Your task to perform on an android device: Add "jbl flip 4" to the cart on costco, then select checkout. Image 0: 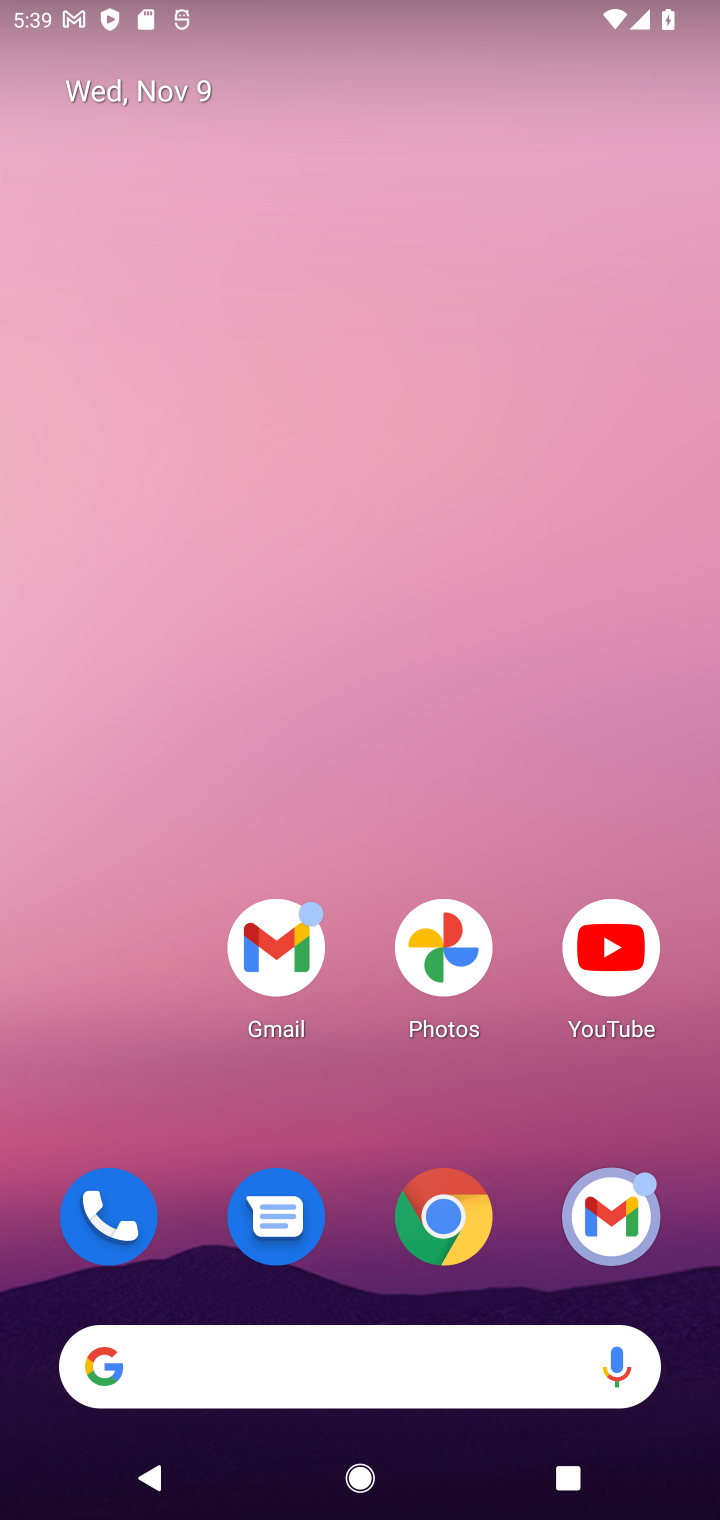
Step 0: drag from (347, 1269) to (401, 163)
Your task to perform on an android device: Add "jbl flip 4" to the cart on costco, then select checkout. Image 1: 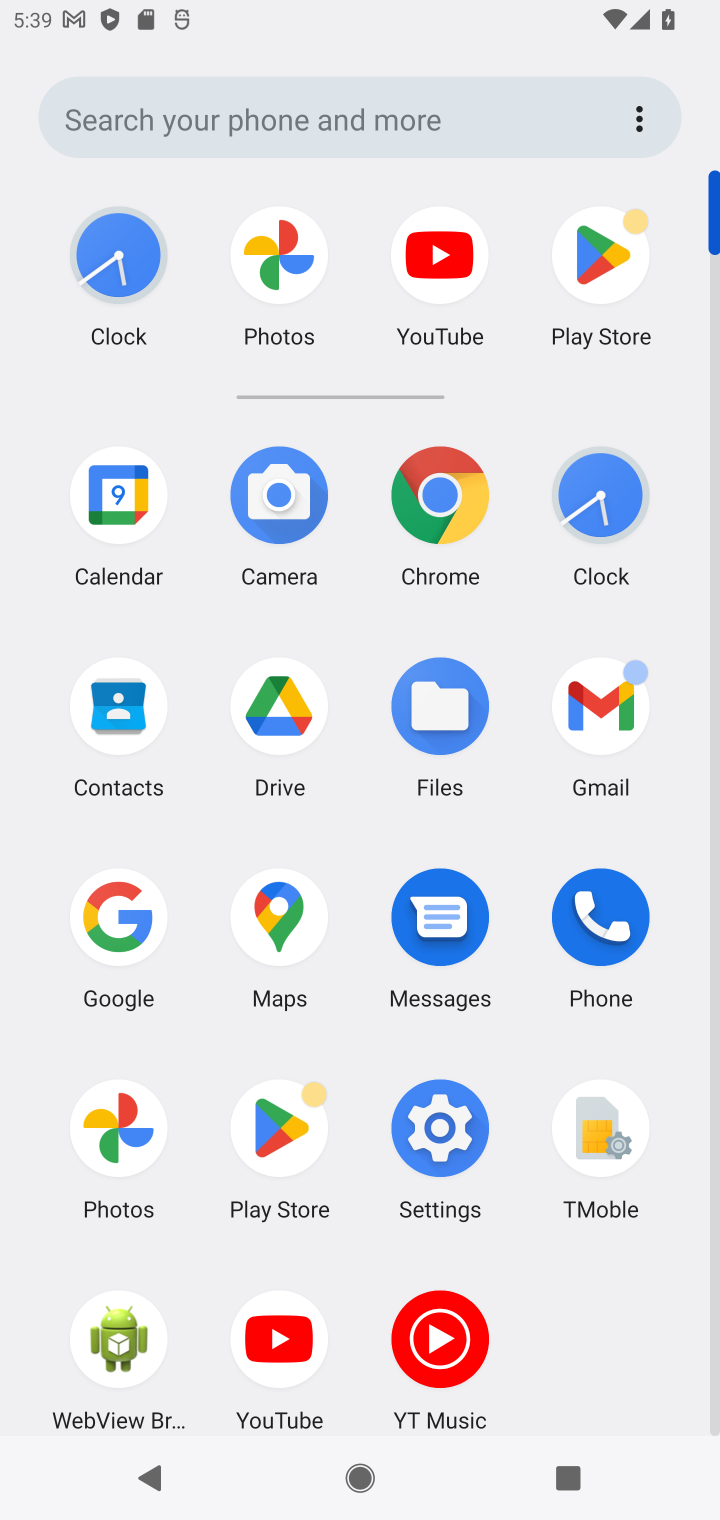
Step 1: click (458, 511)
Your task to perform on an android device: Add "jbl flip 4" to the cart on costco, then select checkout. Image 2: 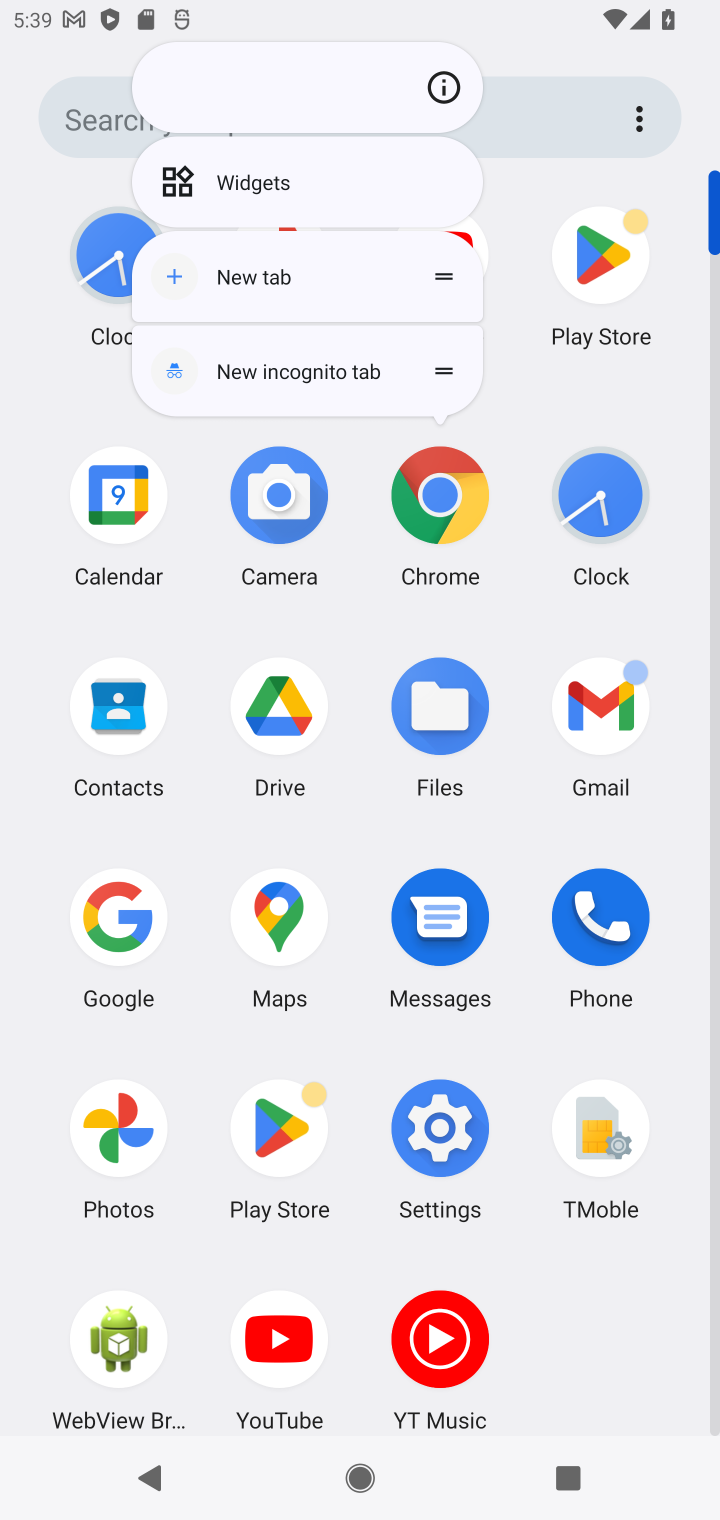
Step 2: click (431, 522)
Your task to perform on an android device: Add "jbl flip 4" to the cart on costco, then select checkout. Image 3: 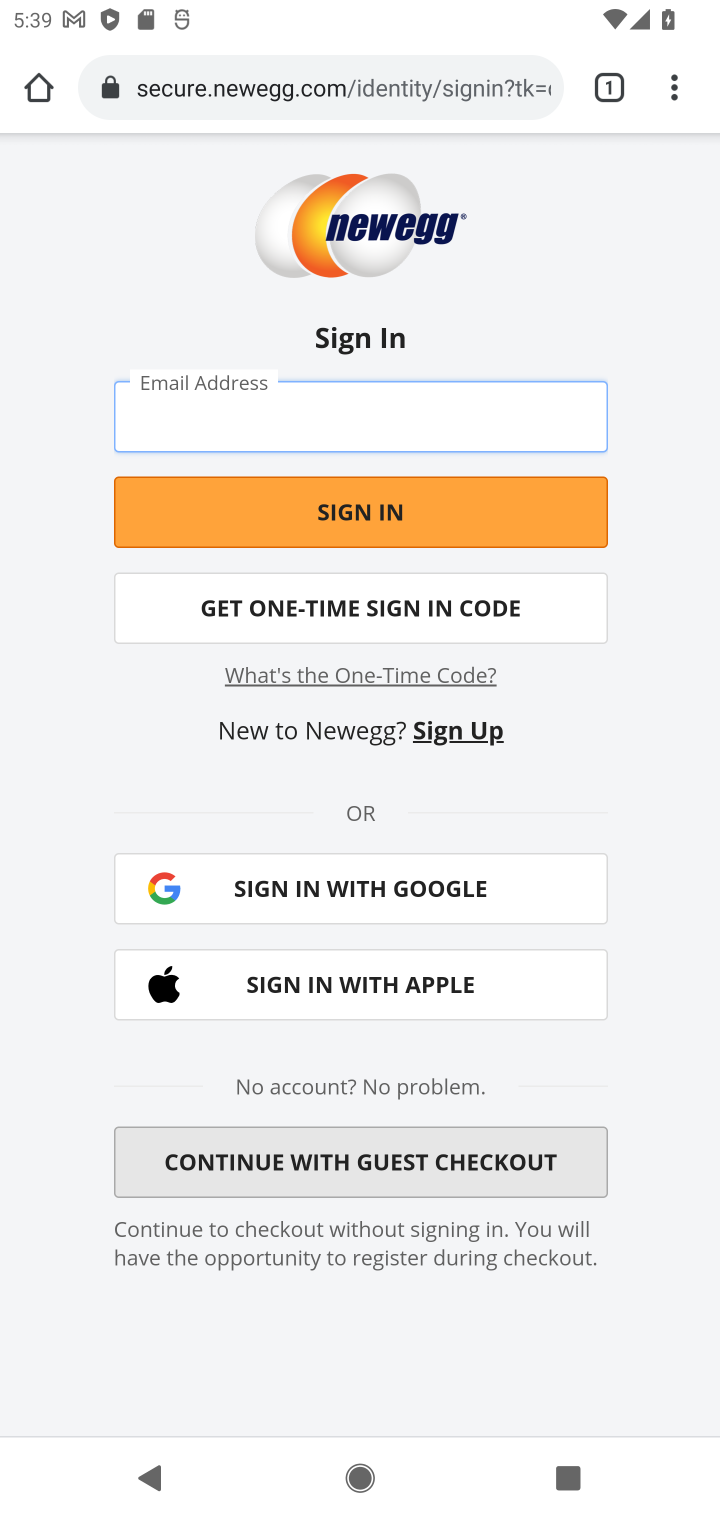
Step 3: click (358, 97)
Your task to perform on an android device: Add "jbl flip 4" to the cart on costco, then select checkout. Image 4: 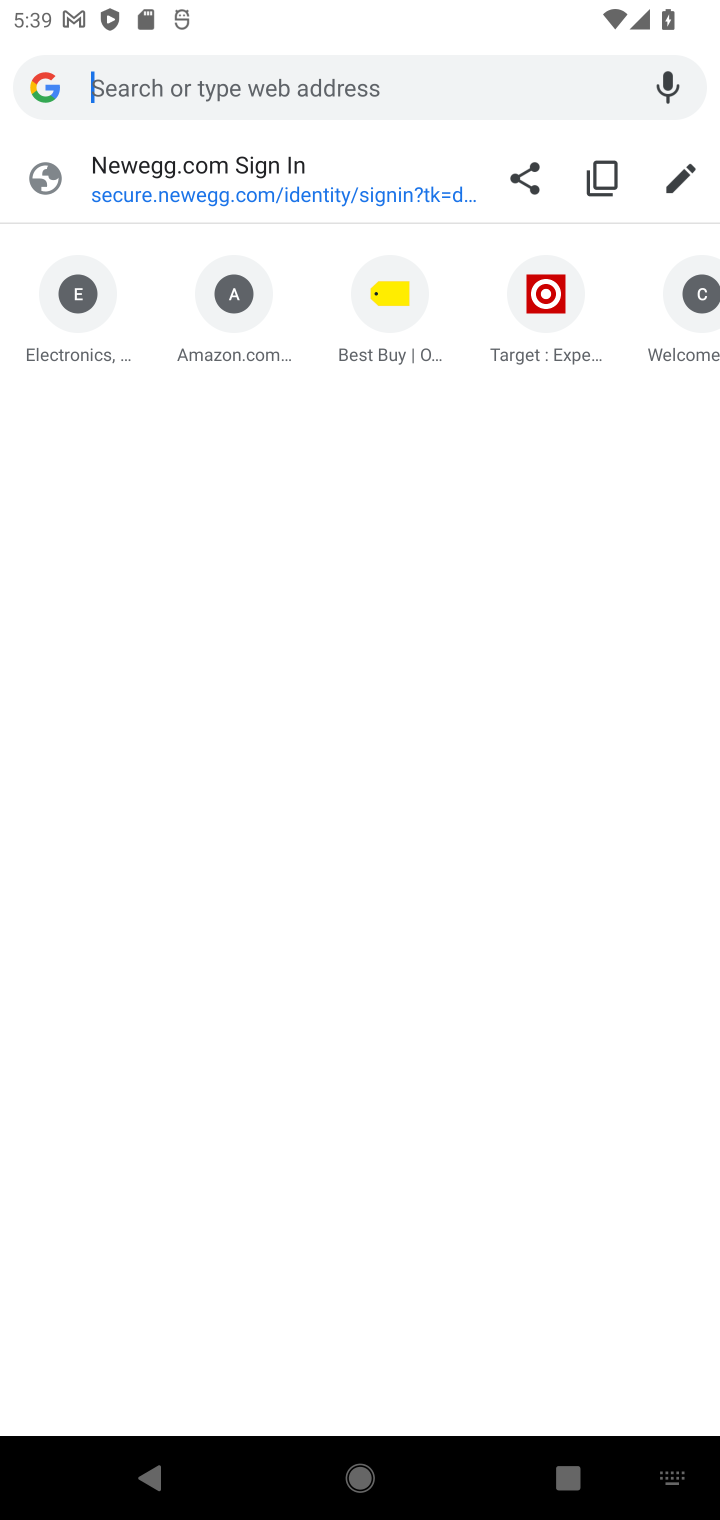
Step 4: type "costco.com"
Your task to perform on an android device: Add "jbl flip 4" to the cart on costco, then select checkout. Image 5: 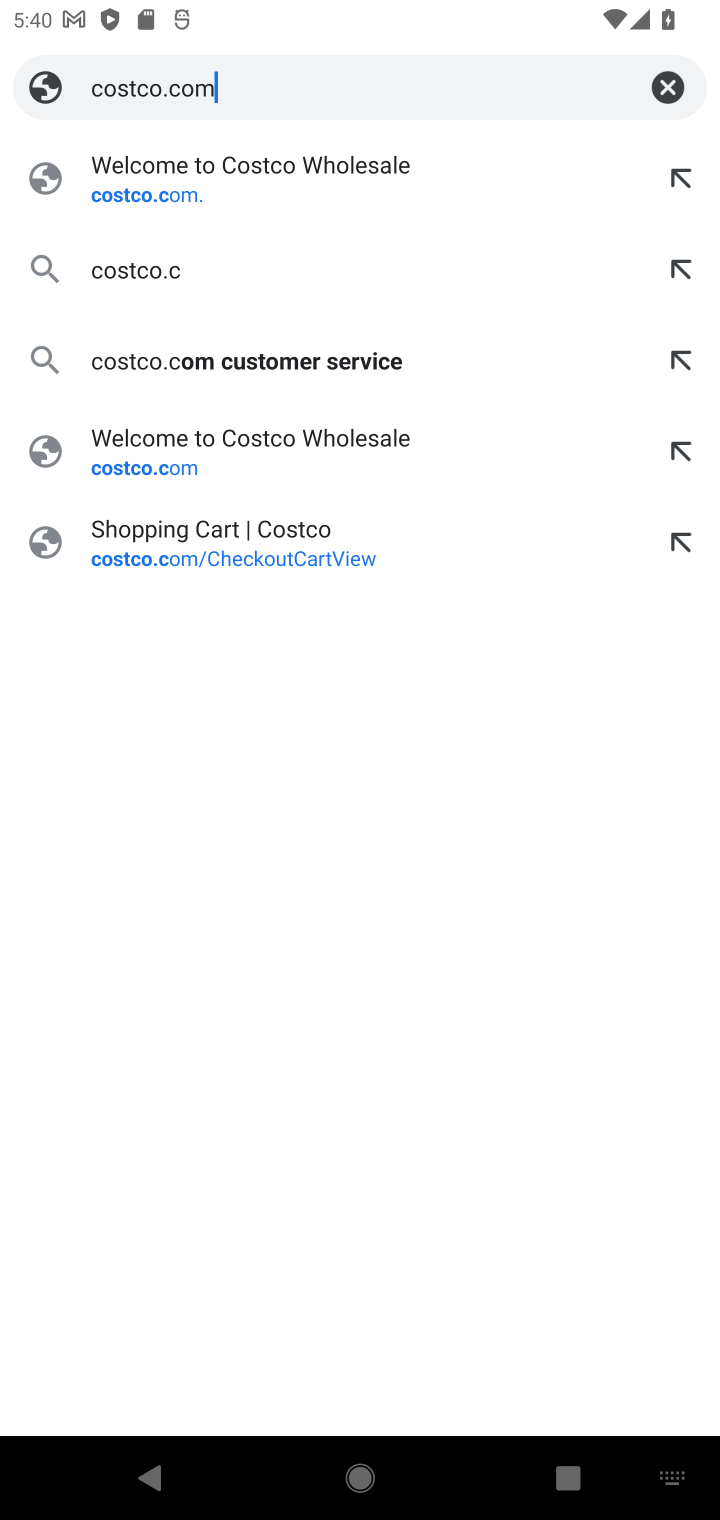
Step 5: press enter
Your task to perform on an android device: Add "jbl flip 4" to the cart on costco, then select checkout. Image 6: 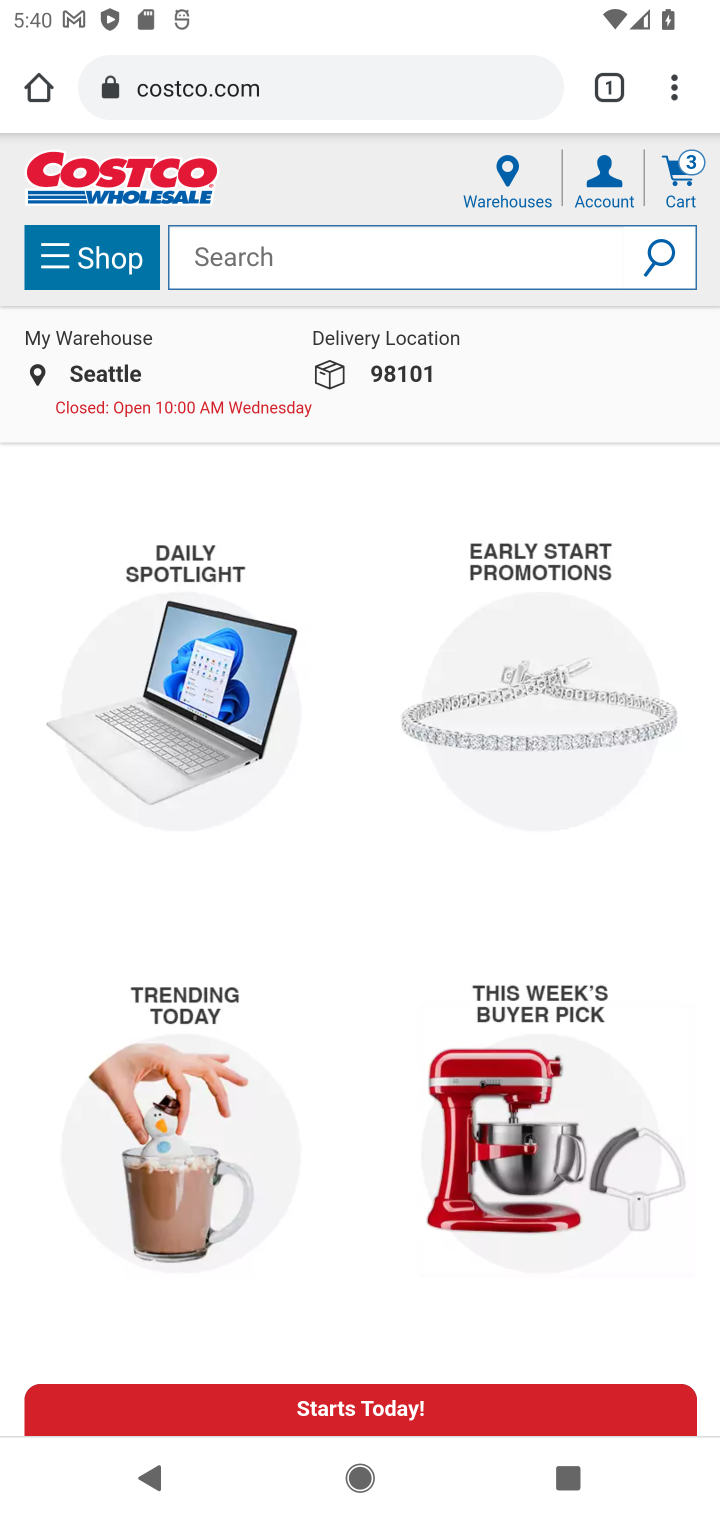
Step 6: click (445, 257)
Your task to perform on an android device: Add "jbl flip 4" to the cart on costco, then select checkout. Image 7: 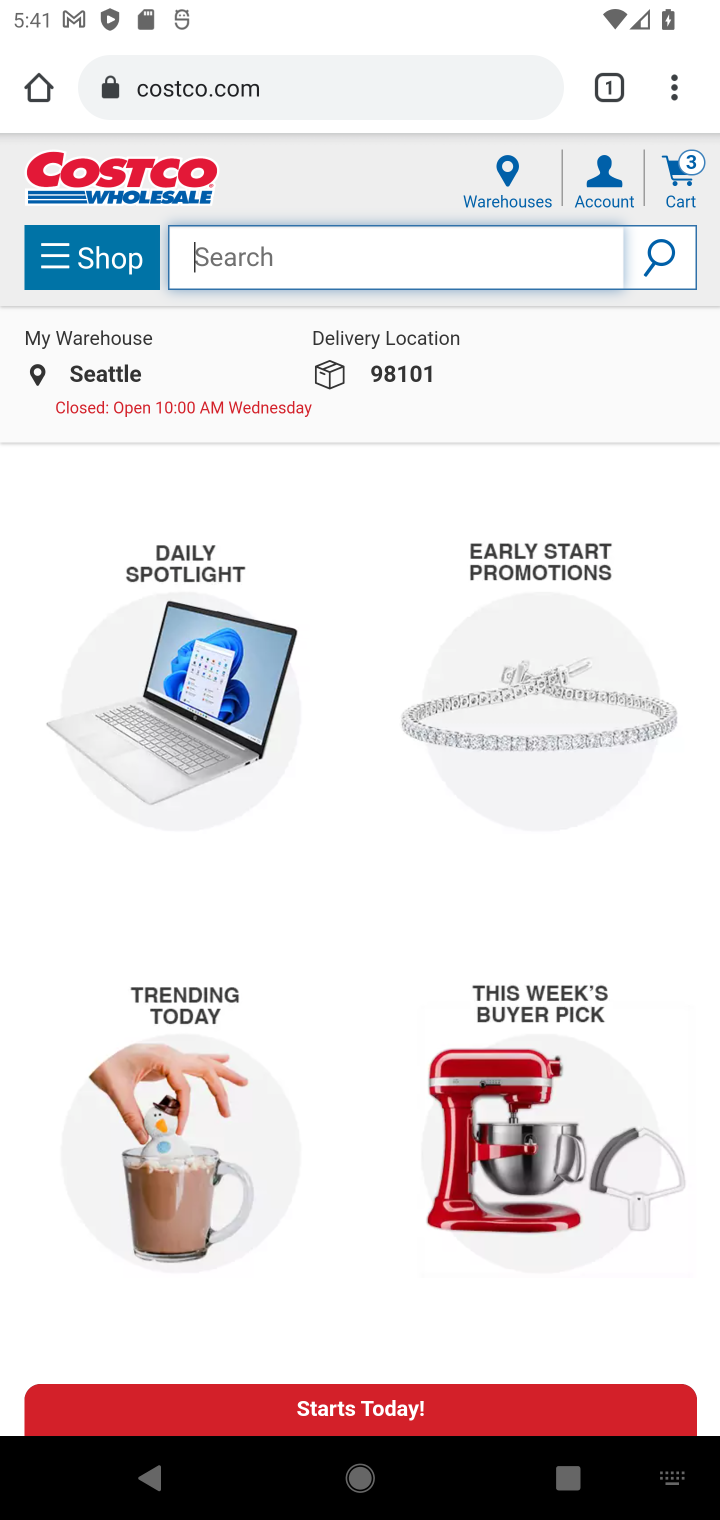
Step 7: type "jbl flip 4"
Your task to perform on an android device: Add "jbl flip 4" to the cart on costco, then select checkout. Image 8: 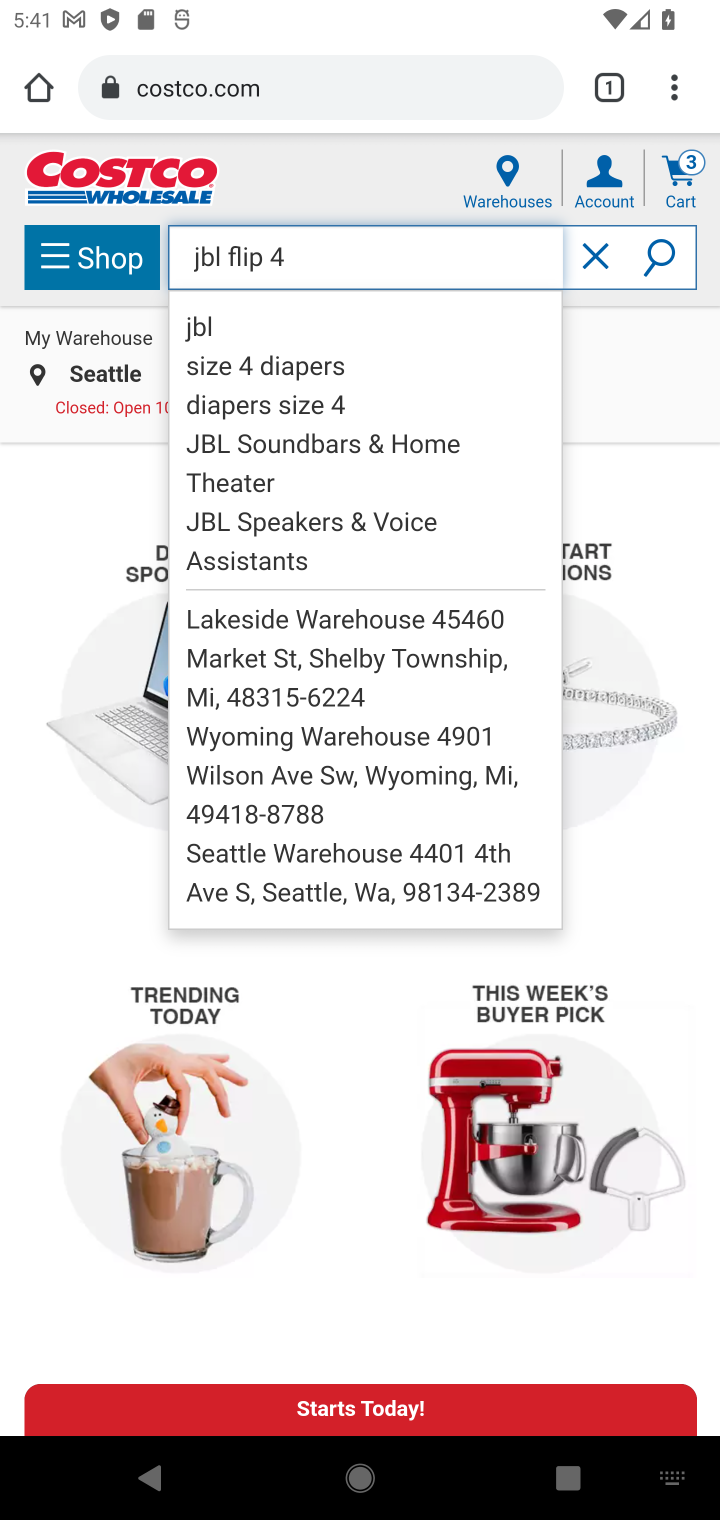
Step 8: press enter
Your task to perform on an android device: Add "jbl flip 4" to the cart on costco, then select checkout. Image 9: 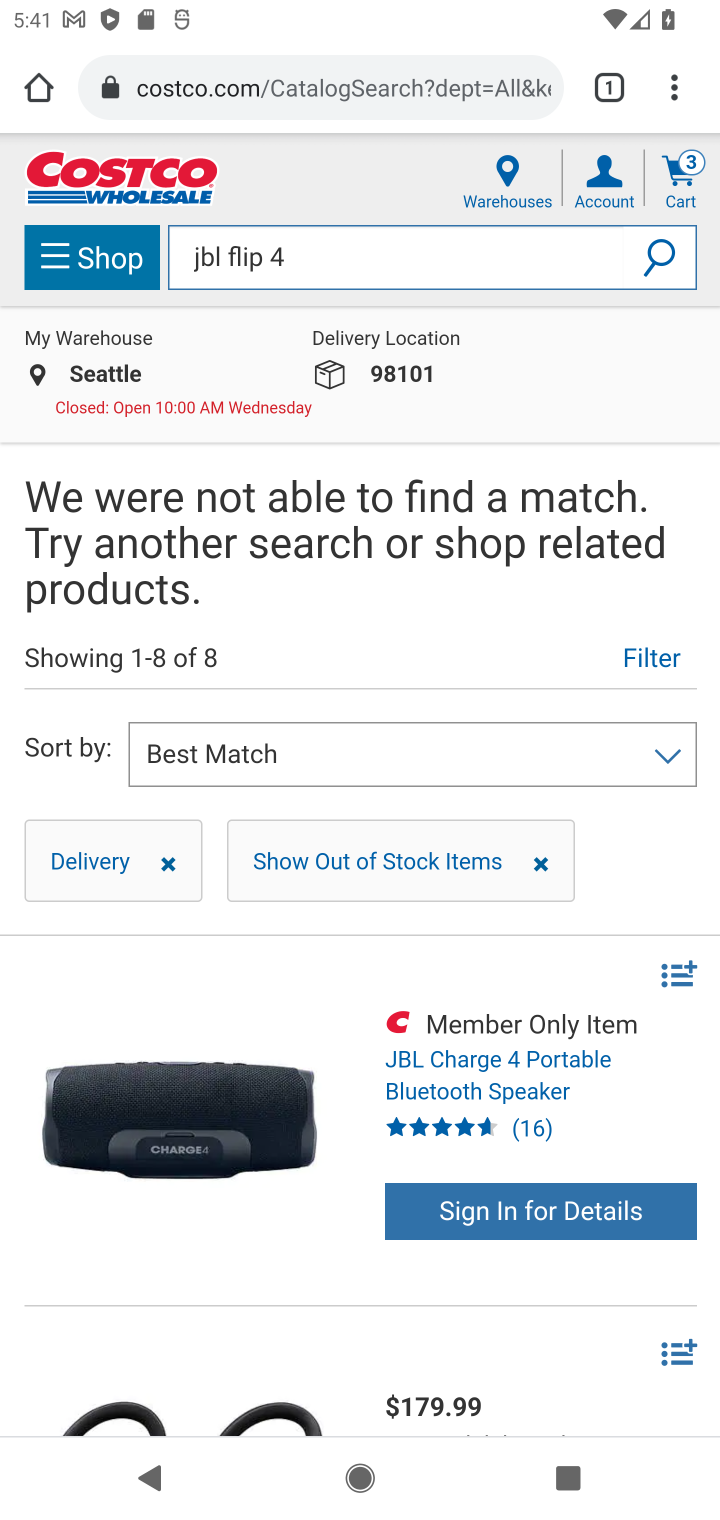
Step 9: task complete